Your task to perform on an android device: Go to ESPN.com Image 0: 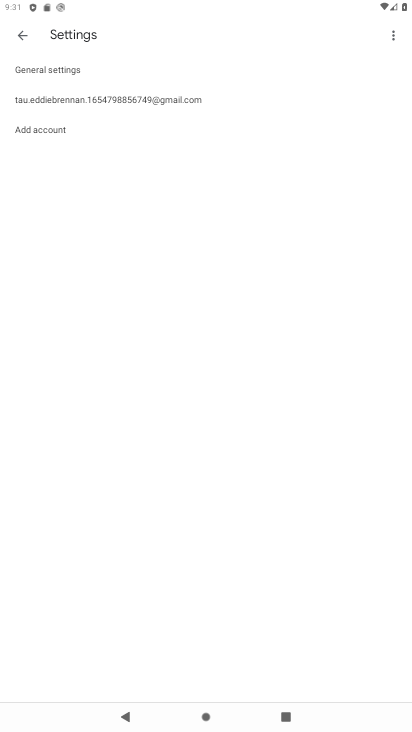
Step 0: task complete